Your task to perform on an android device: open app "LinkedIn" (install if not already installed) and go to login screen Image 0: 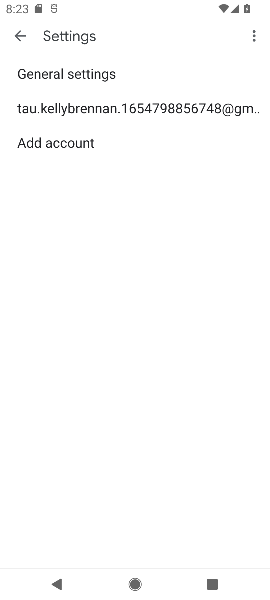
Step 0: press home button
Your task to perform on an android device: open app "LinkedIn" (install if not already installed) and go to login screen Image 1: 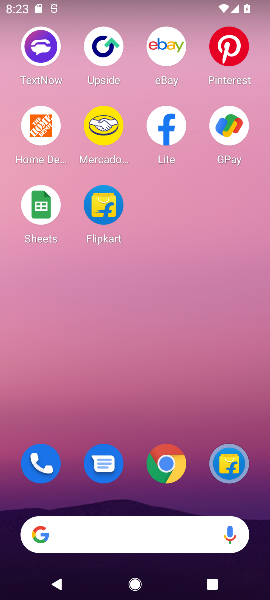
Step 1: drag from (139, 484) to (99, 18)
Your task to perform on an android device: open app "LinkedIn" (install if not already installed) and go to login screen Image 2: 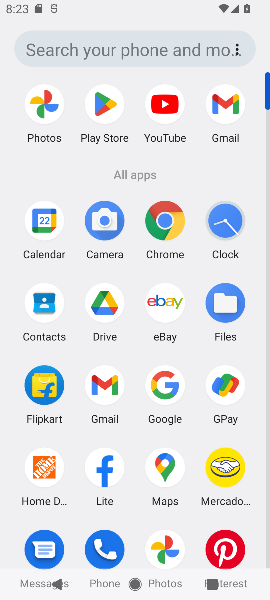
Step 2: click (96, 102)
Your task to perform on an android device: open app "LinkedIn" (install if not already installed) and go to login screen Image 3: 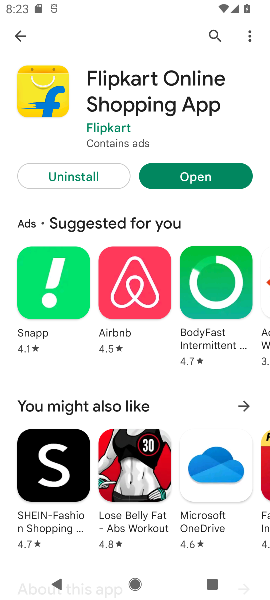
Step 3: click (20, 36)
Your task to perform on an android device: open app "LinkedIn" (install if not already installed) and go to login screen Image 4: 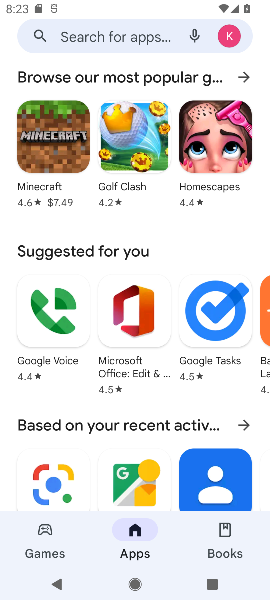
Step 4: click (92, 36)
Your task to perform on an android device: open app "LinkedIn" (install if not already installed) and go to login screen Image 5: 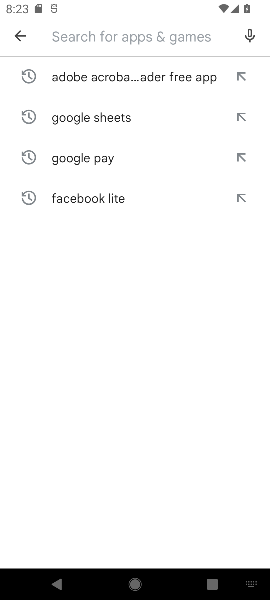
Step 5: type "LinkedIn"
Your task to perform on an android device: open app "LinkedIn" (install if not already installed) and go to login screen Image 6: 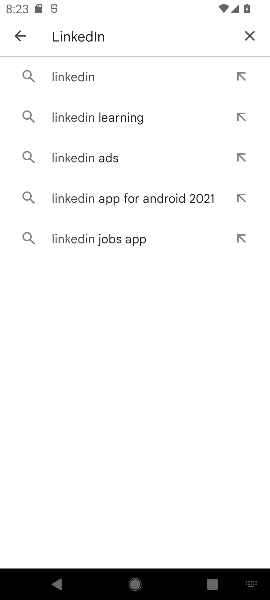
Step 6: click (89, 84)
Your task to perform on an android device: open app "LinkedIn" (install if not already installed) and go to login screen Image 7: 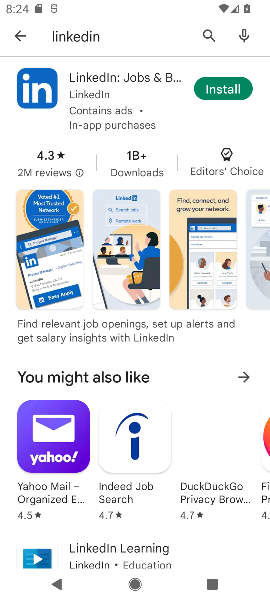
Step 7: click (226, 90)
Your task to perform on an android device: open app "LinkedIn" (install if not already installed) and go to login screen Image 8: 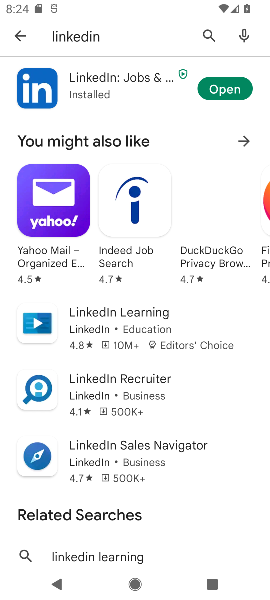
Step 8: click (226, 90)
Your task to perform on an android device: open app "LinkedIn" (install if not already installed) and go to login screen Image 9: 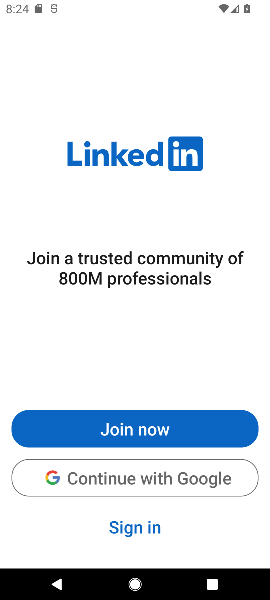
Step 9: task complete